Your task to perform on an android device: change keyboard looks Image 0: 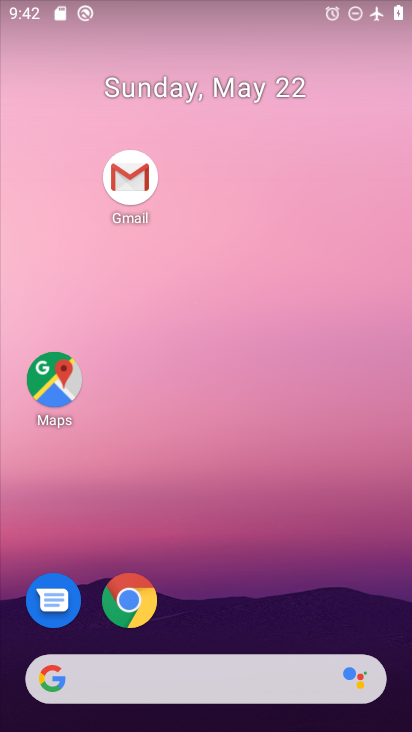
Step 0: drag from (197, 693) to (284, 132)
Your task to perform on an android device: change keyboard looks Image 1: 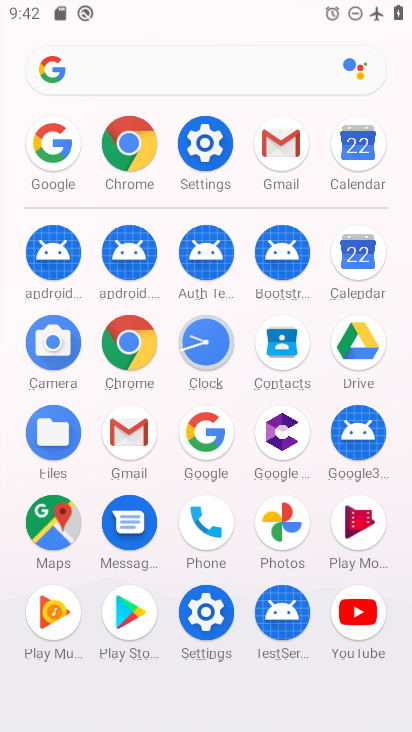
Step 1: click (207, 171)
Your task to perform on an android device: change keyboard looks Image 2: 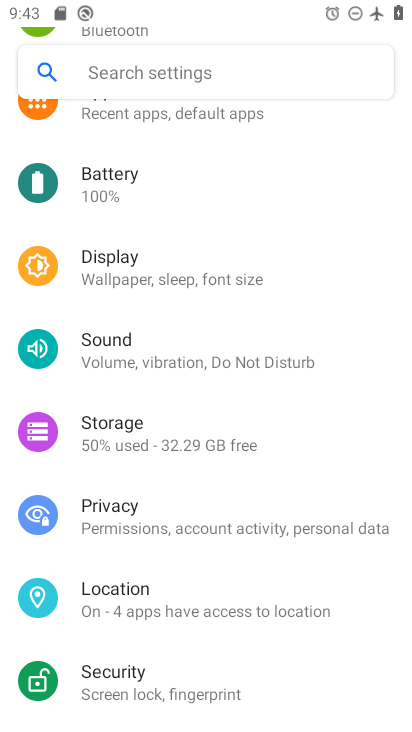
Step 2: drag from (227, 534) to (270, 213)
Your task to perform on an android device: change keyboard looks Image 3: 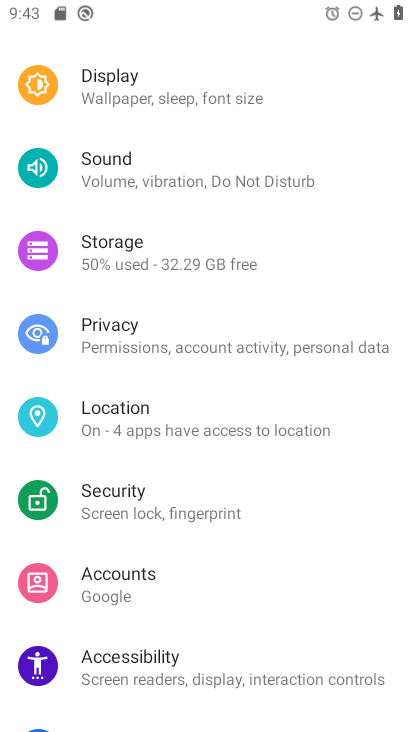
Step 3: drag from (247, 278) to (185, 727)
Your task to perform on an android device: change keyboard looks Image 4: 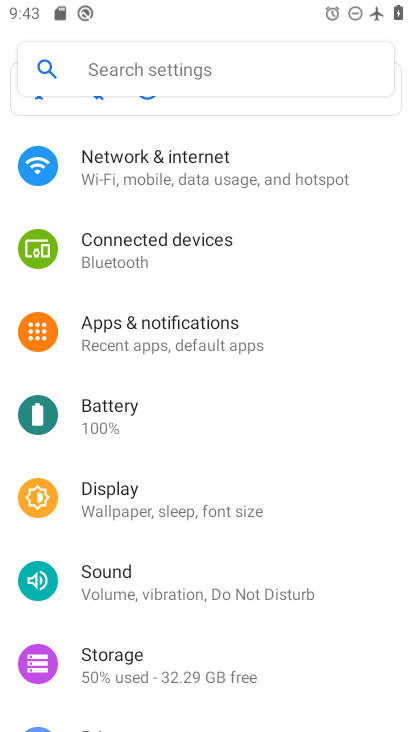
Step 4: drag from (208, 548) to (280, 92)
Your task to perform on an android device: change keyboard looks Image 5: 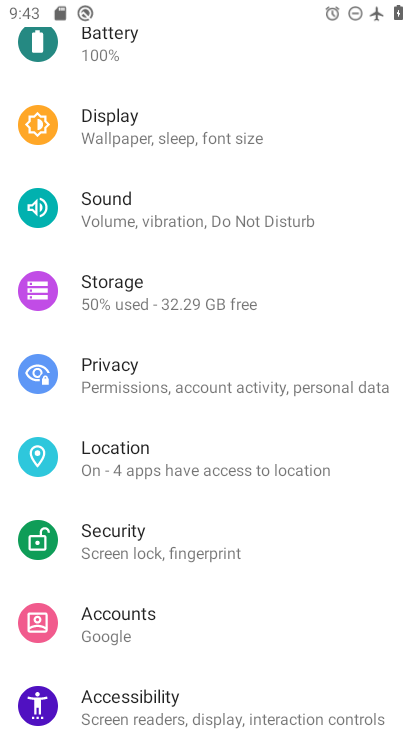
Step 5: drag from (204, 555) to (280, 134)
Your task to perform on an android device: change keyboard looks Image 6: 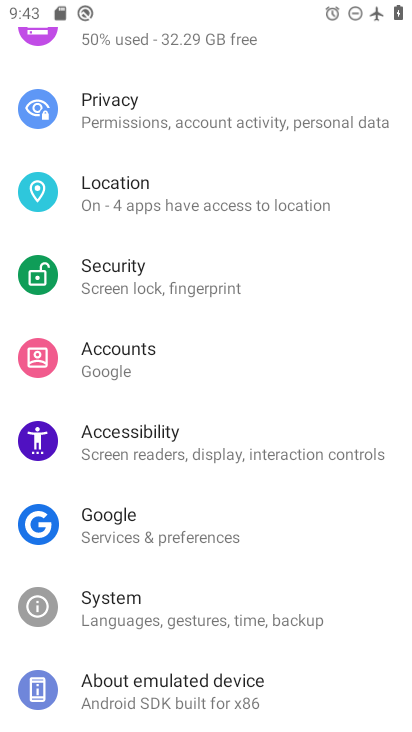
Step 6: drag from (217, 517) to (263, 311)
Your task to perform on an android device: change keyboard looks Image 7: 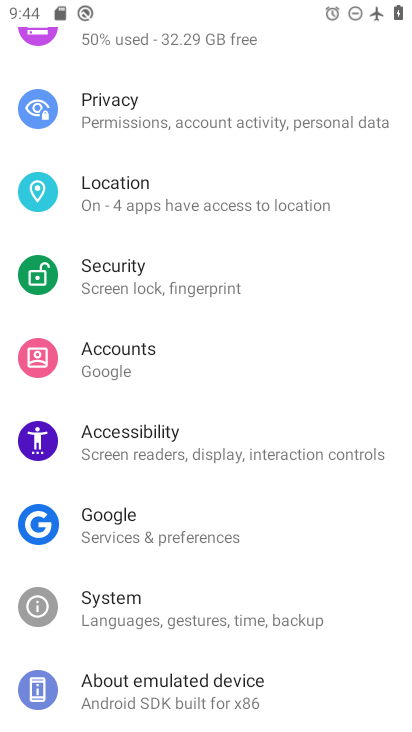
Step 7: click (172, 611)
Your task to perform on an android device: change keyboard looks Image 8: 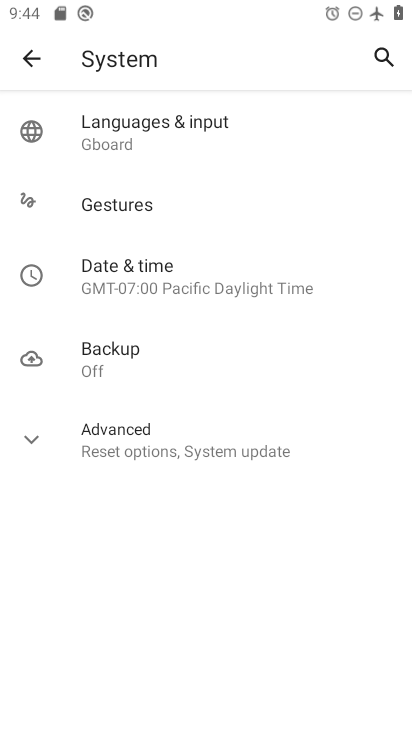
Step 8: click (189, 151)
Your task to perform on an android device: change keyboard looks Image 9: 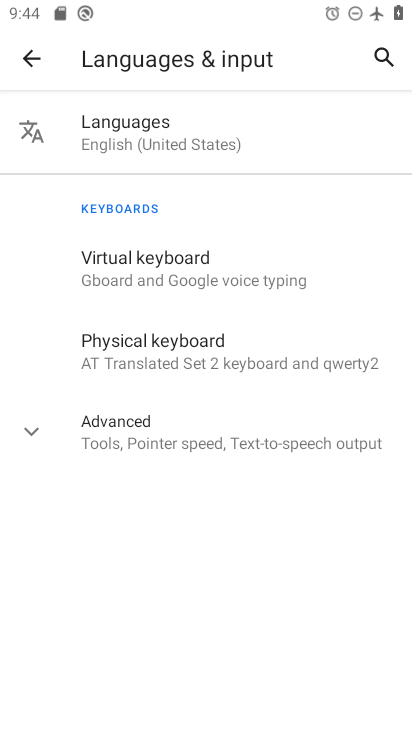
Step 9: click (168, 266)
Your task to perform on an android device: change keyboard looks Image 10: 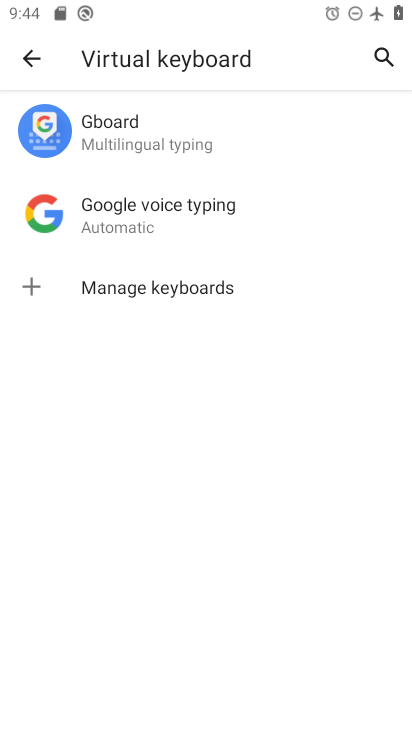
Step 10: click (215, 121)
Your task to perform on an android device: change keyboard looks Image 11: 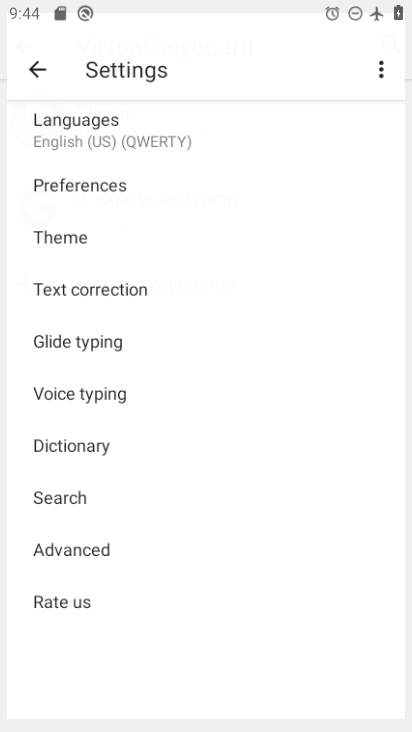
Step 11: click (184, 142)
Your task to perform on an android device: change keyboard looks Image 12: 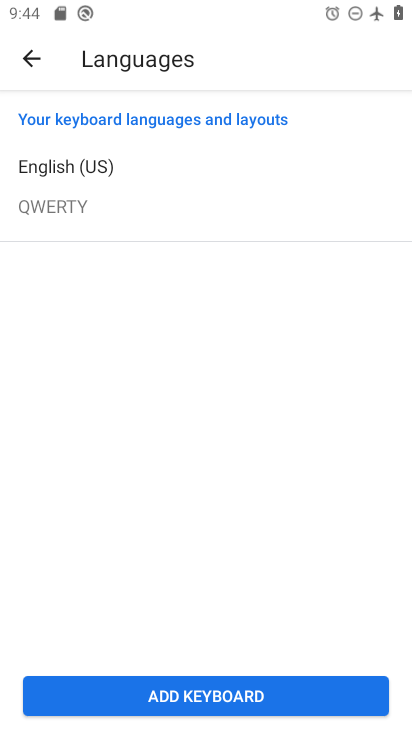
Step 12: click (82, 244)
Your task to perform on an android device: change keyboard looks Image 13: 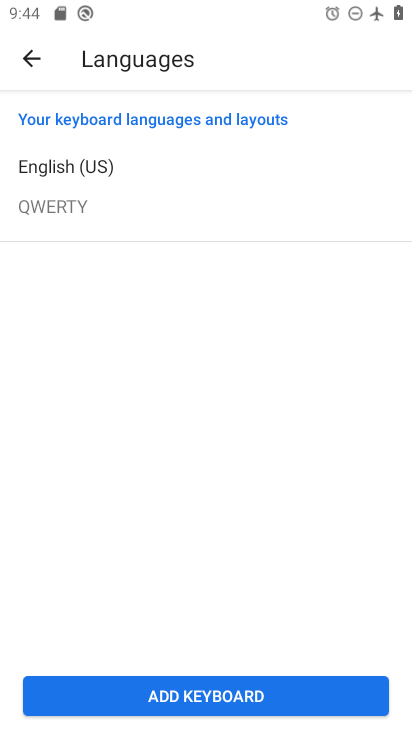
Step 13: click (23, 60)
Your task to perform on an android device: change keyboard looks Image 14: 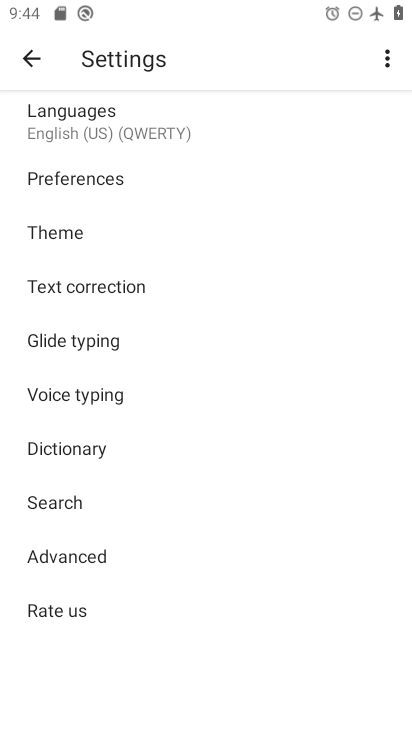
Step 14: click (84, 236)
Your task to perform on an android device: change keyboard looks Image 15: 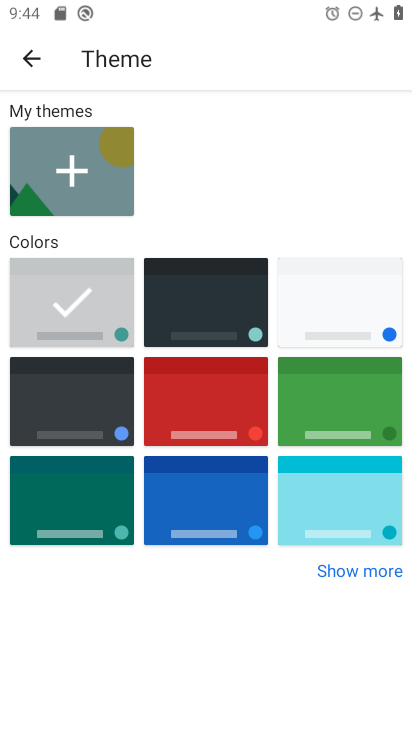
Step 15: click (333, 308)
Your task to perform on an android device: change keyboard looks Image 16: 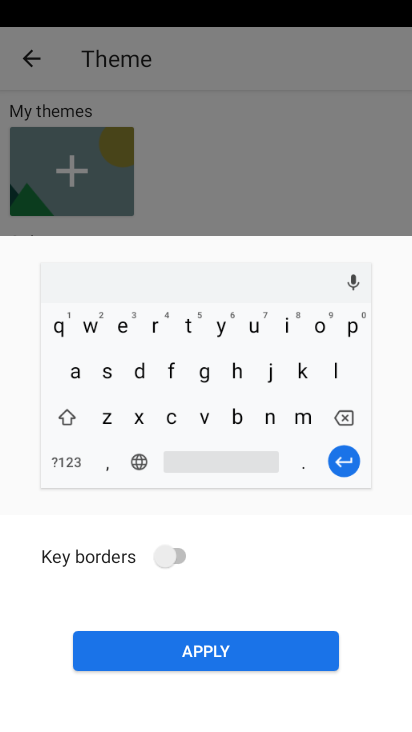
Step 16: click (229, 654)
Your task to perform on an android device: change keyboard looks Image 17: 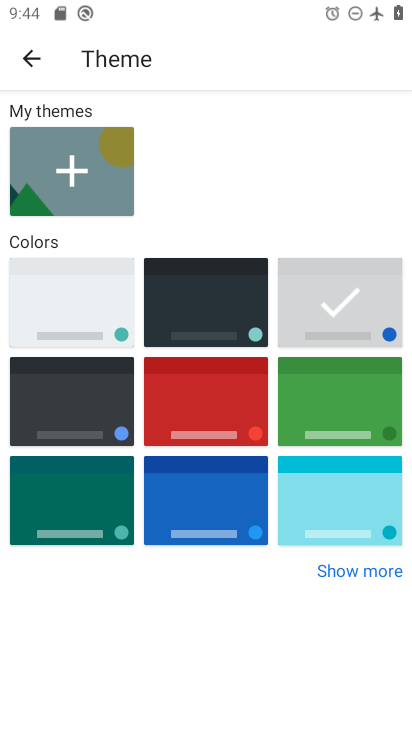
Step 17: task complete